Your task to perform on an android device: turn pop-ups on in chrome Image 0: 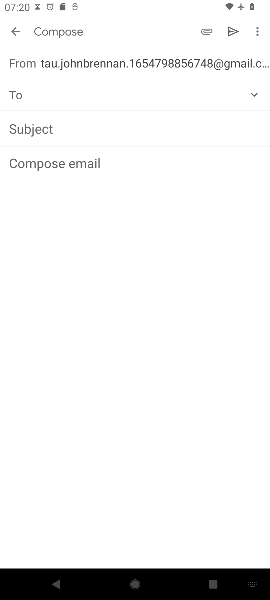
Step 0: press home button
Your task to perform on an android device: turn pop-ups on in chrome Image 1: 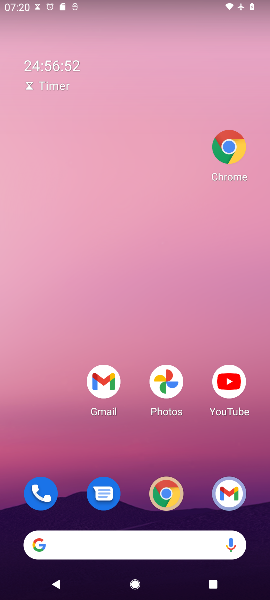
Step 1: click (171, 503)
Your task to perform on an android device: turn pop-ups on in chrome Image 2: 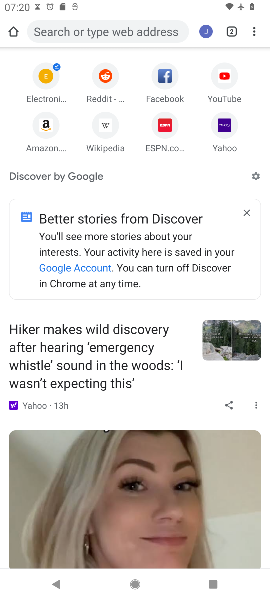
Step 2: drag from (255, 32) to (161, 307)
Your task to perform on an android device: turn pop-ups on in chrome Image 3: 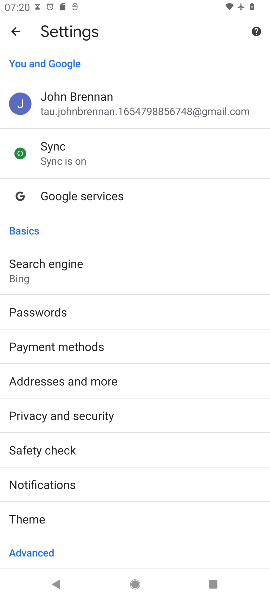
Step 3: drag from (70, 552) to (108, 239)
Your task to perform on an android device: turn pop-ups on in chrome Image 4: 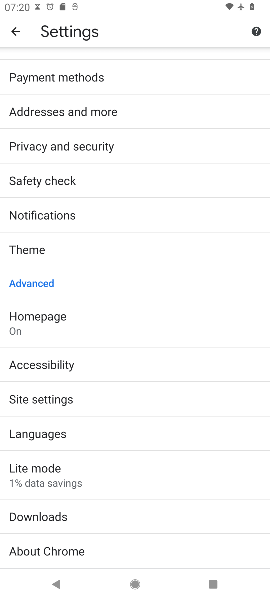
Step 4: click (58, 400)
Your task to perform on an android device: turn pop-ups on in chrome Image 5: 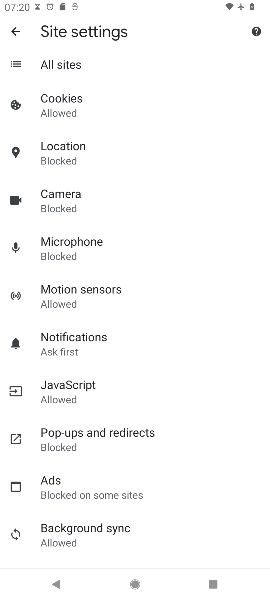
Step 5: click (62, 434)
Your task to perform on an android device: turn pop-ups on in chrome Image 6: 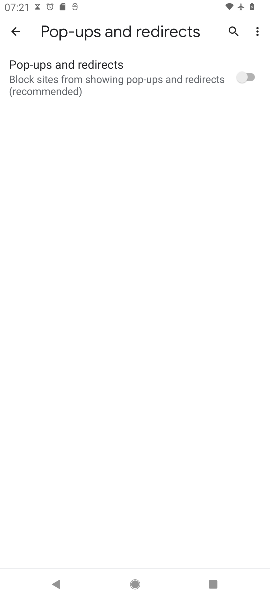
Step 6: click (245, 73)
Your task to perform on an android device: turn pop-ups on in chrome Image 7: 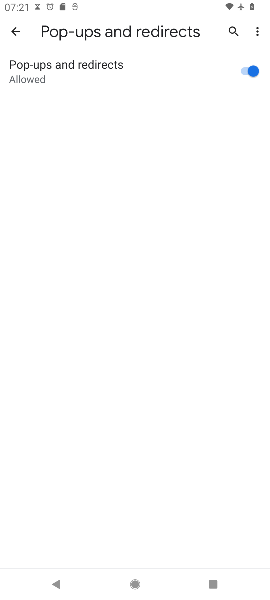
Step 7: task complete